Your task to perform on an android device: Open Reddit.com Image 0: 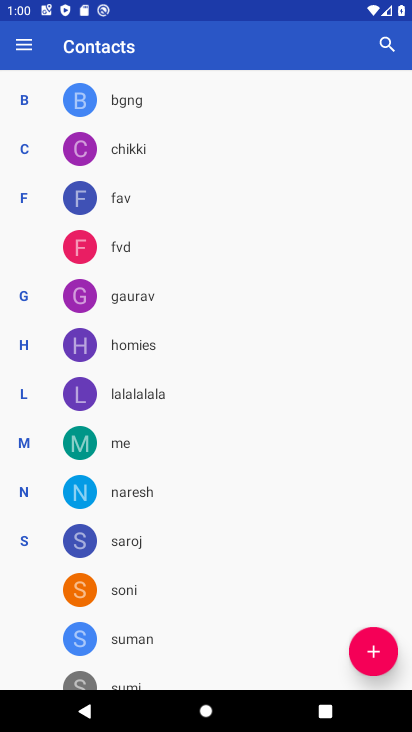
Step 0: press home button
Your task to perform on an android device: Open Reddit.com Image 1: 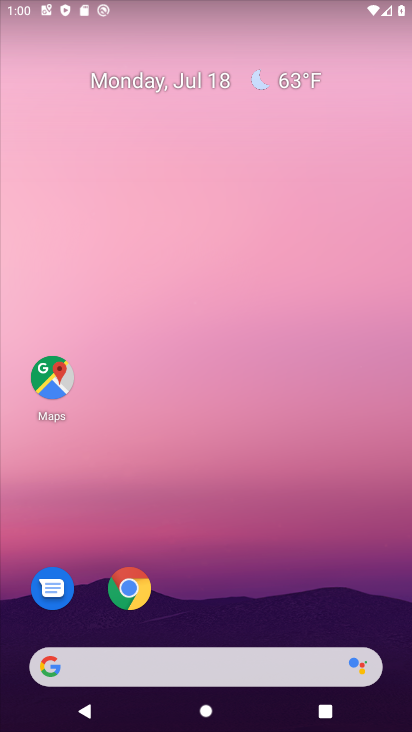
Step 1: click (134, 578)
Your task to perform on an android device: Open Reddit.com Image 2: 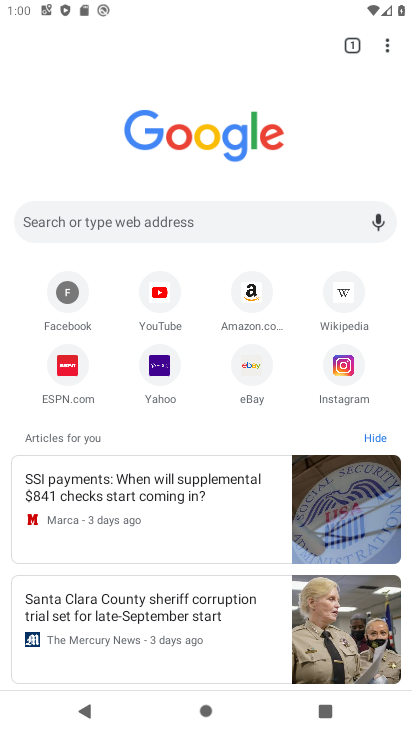
Step 2: click (134, 217)
Your task to perform on an android device: Open Reddit.com Image 3: 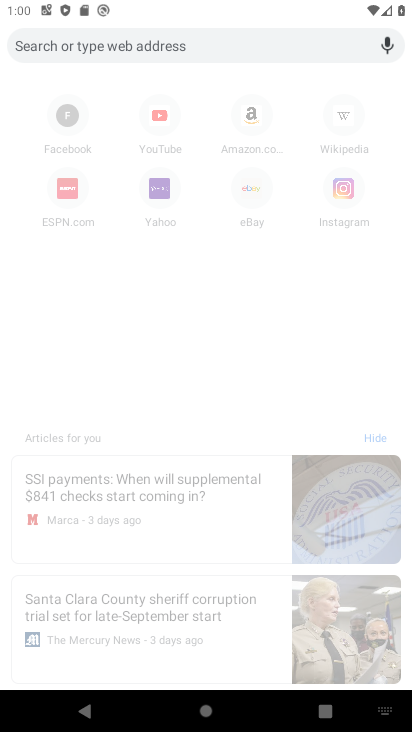
Step 3: type "Reddit.com"
Your task to perform on an android device: Open Reddit.com Image 4: 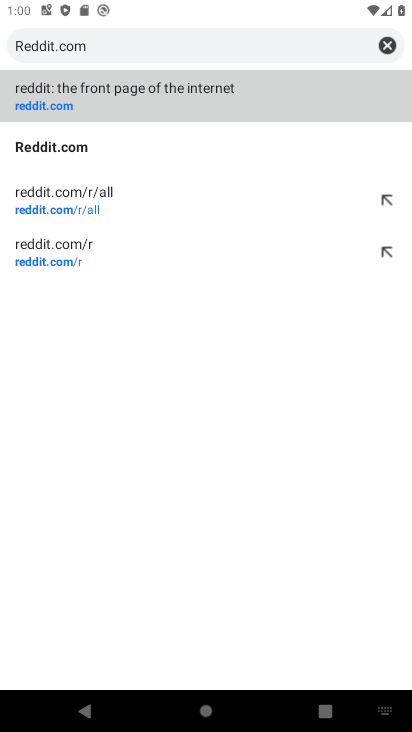
Step 4: click (66, 139)
Your task to perform on an android device: Open Reddit.com Image 5: 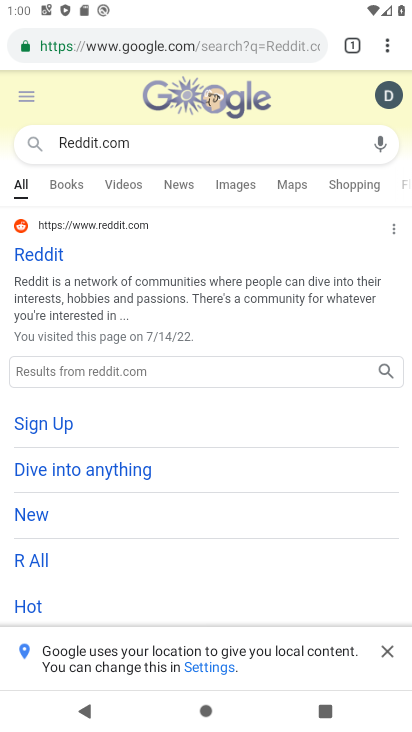
Step 5: task complete